Your task to perform on an android device: delete browsing data in the chrome app Image 0: 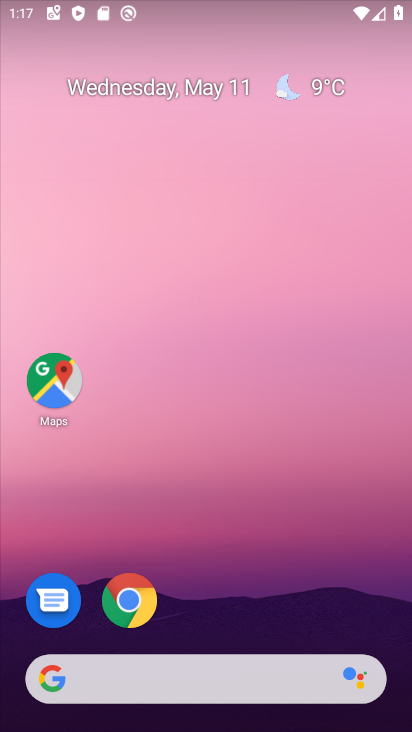
Step 0: click (130, 604)
Your task to perform on an android device: delete browsing data in the chrome app Image 1: 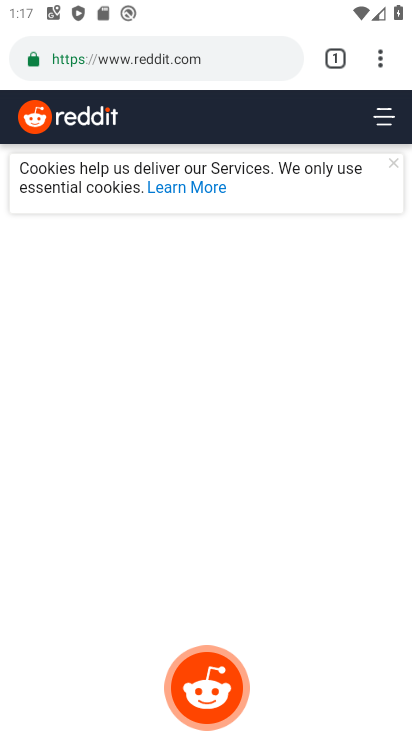
Step 1: click (379, 52)
Your task to perform on an android device: delete browsing data in the chrome app Image 2: 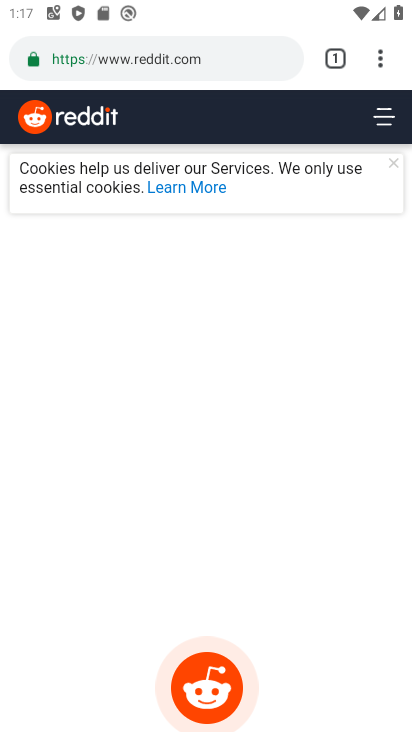
Step 2: drag from (385, 58) to (212, 340)
Your task to perform on an android device: delete browsing data in the chrome app Image 3: 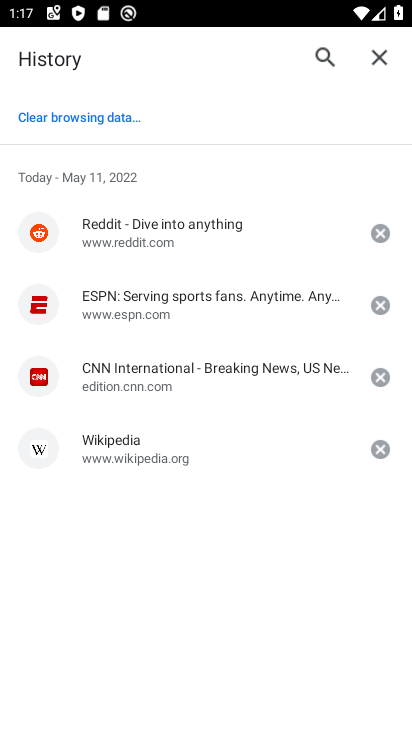
Step 3: click (78, 114)
Your task to perform on an android device: delete browsing data in the chrome app Image 4: 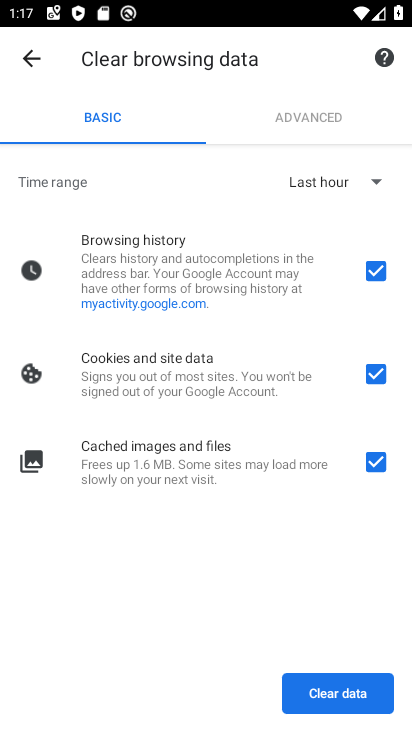
Step 4: click (322, 695)
Your task to perform on an android device: delete browsing data in the chrome app Image 5: 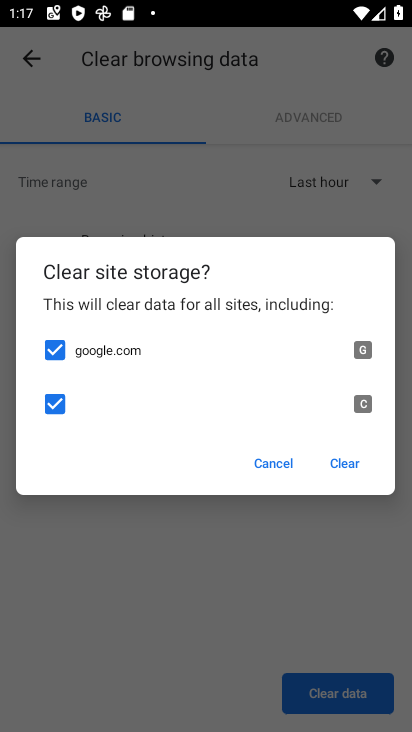
Step 5: click (343, 463)
Your task to perform on an android device: delete browsing data in the chrome app Image 6: 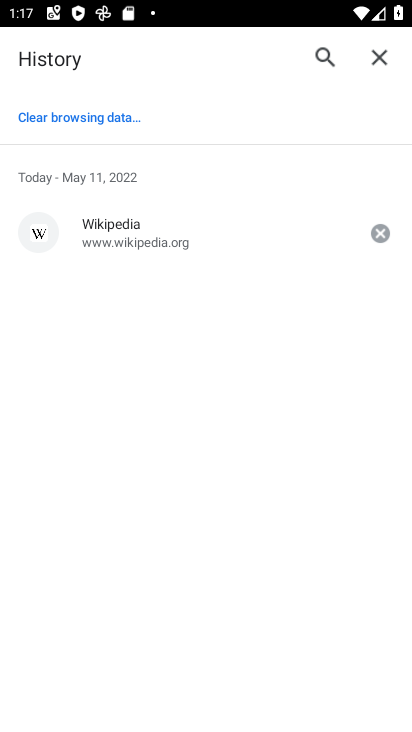
Step 6: task complete